Your task to perform on an android device: open app "Google Pay: Save, Pay, Manage" (install if not already installed) Image 0: 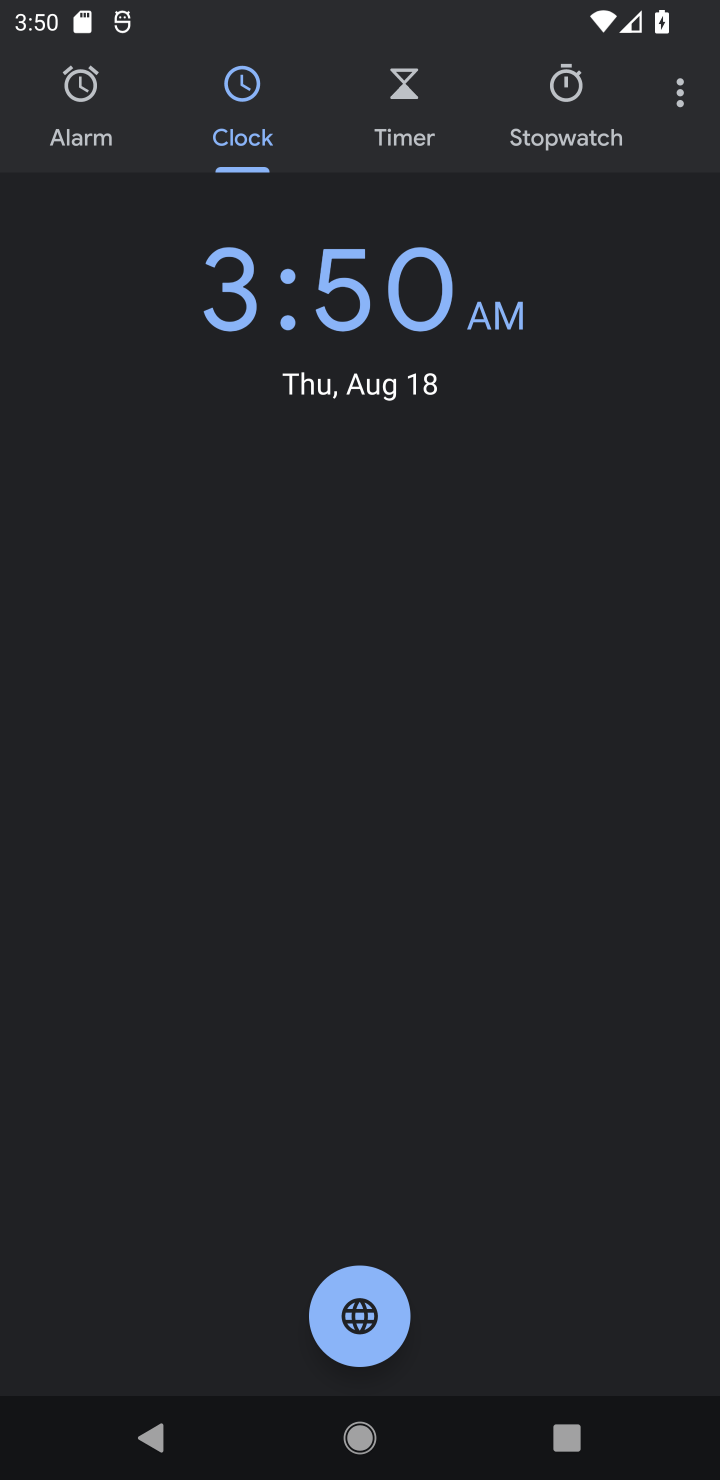
Step 0: press home button
Your task to perform on an android device: open app "Google Pay: Save, Pay, Manage" (install if not already installed) Image 1: 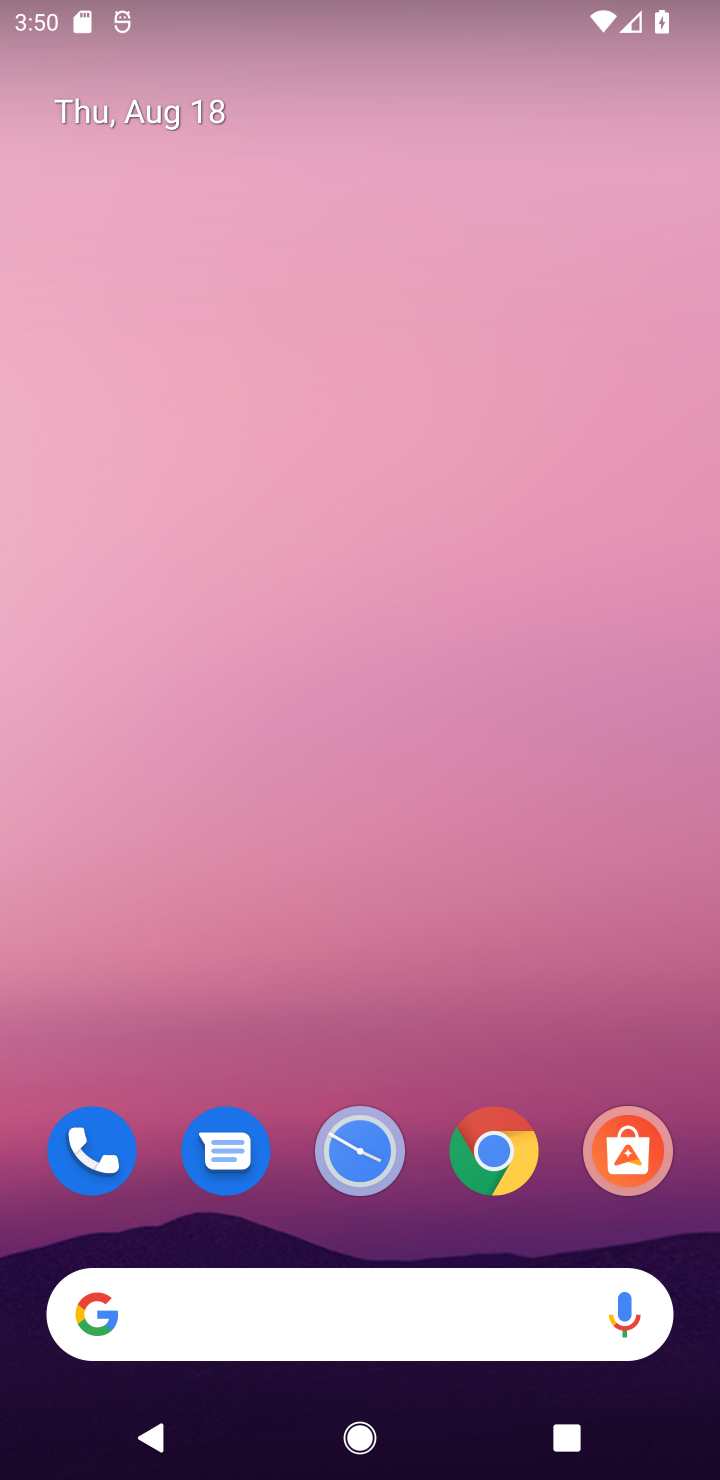
Step 1: drag from (420, 1244) to (498, 206)
Your task to perform on an android device: open app "Google Pay: Save, Pay, Manage" (install if not already installed) Image 2: 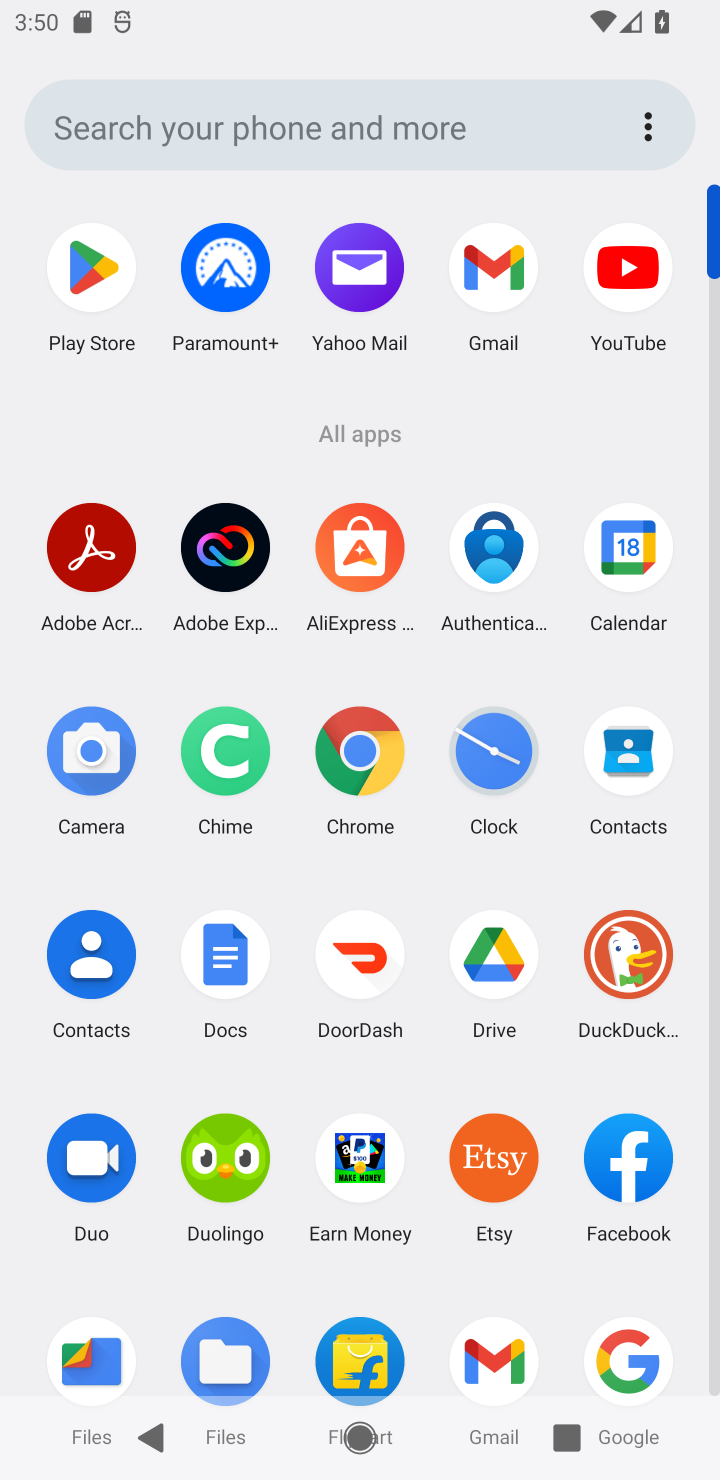
Step 2: drag from (452, 1304) to (409, 596)
Your task to perform on an android device: open app "Google Pay: Save, Pay, Manage" (install if not already installed) Image 3: 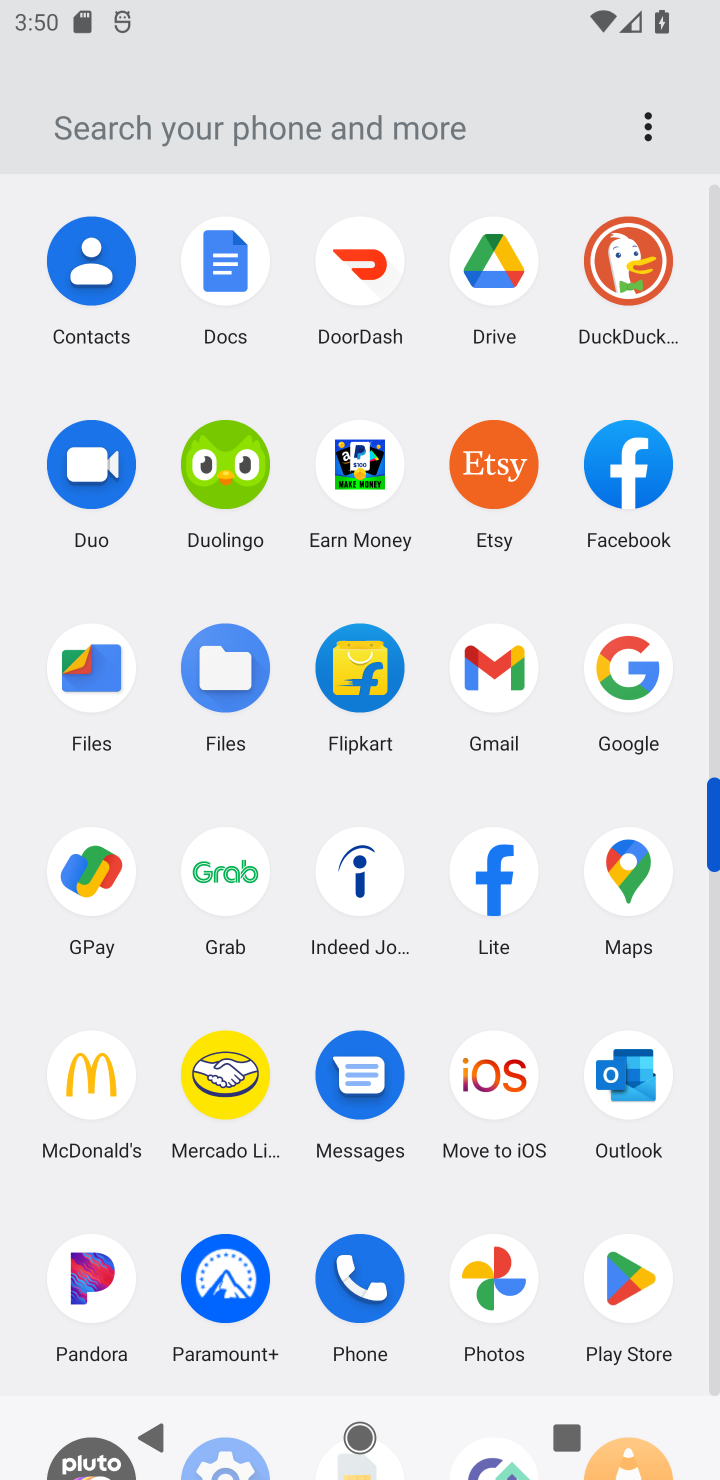
Step 3: click (76, 870)
Your task to perform on an android device: open app "Google Pay: Save, Pay, Manage" (install if not already installed) Image 4: 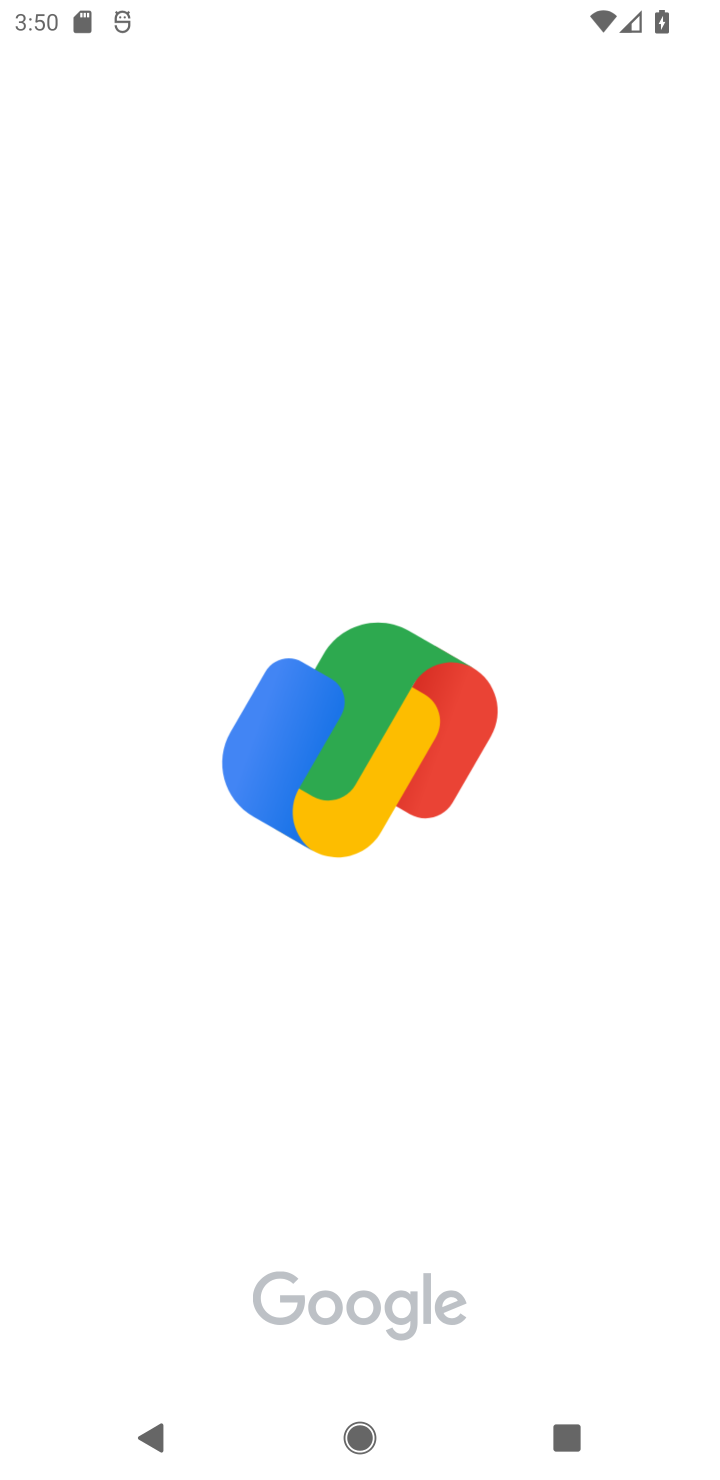
Step 4: task complete